Your task to perform on an android device: search for starred emails in the gmail app Image 0: 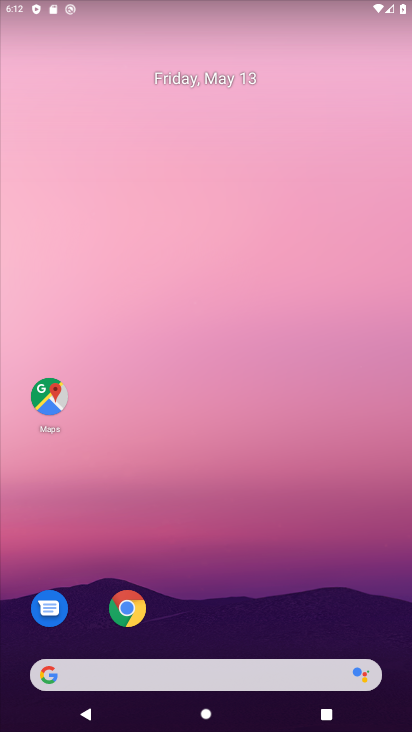
Step 0: drag from (200, 592) to (247, 51)
Your task to perform on an android device: search for starred emails in the gmail app Image 1: 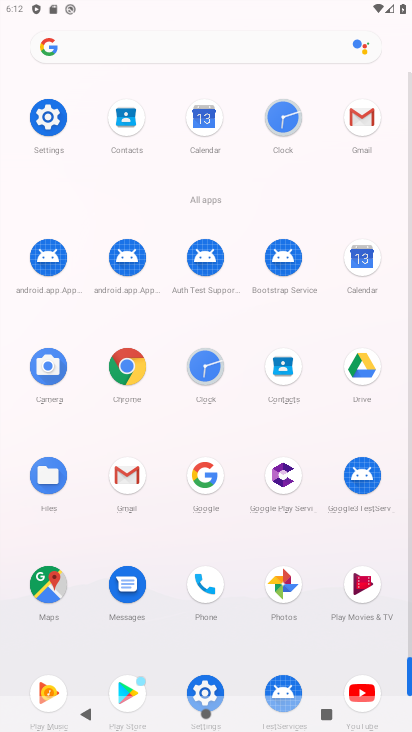
Step 1: click (129, 485)
Your task to perform on an android device: search for starred emails in the gmail app Image 2: 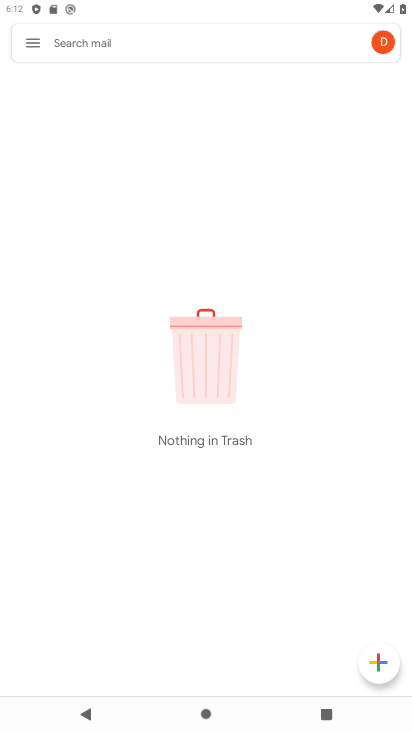
Step 2: click (36, 39)
Your task to perform on an android device: search for starred emails in the gmail app Image 3: 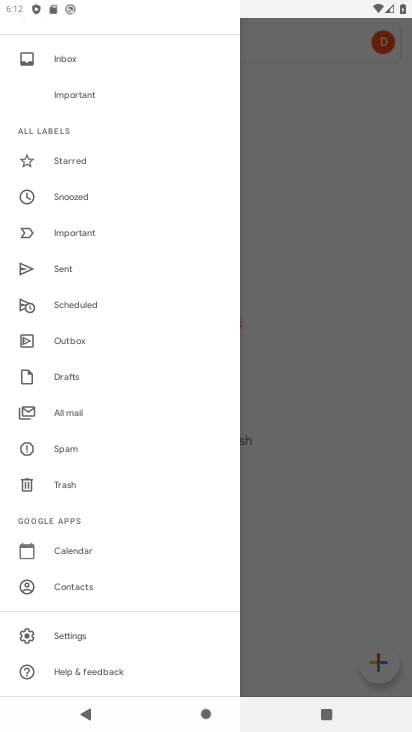
Step 3: click (61, 160)
Your task to perform on an android device: search for starred emails in the gmail app Image 4: 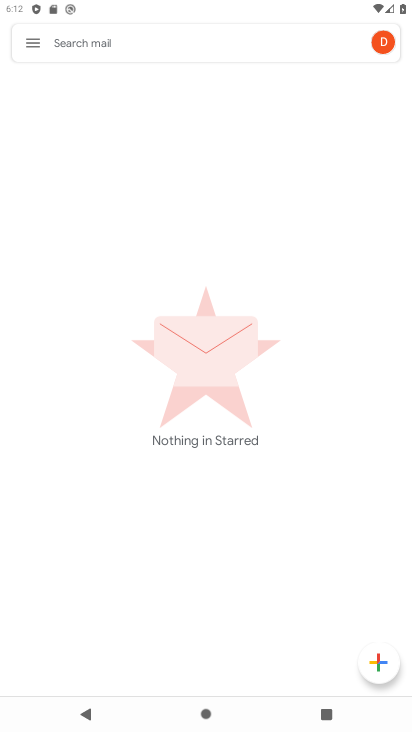
Step 4: task complete